Your task to perform on an android device: Search for seafood restaurants on Google Maps Image 0: 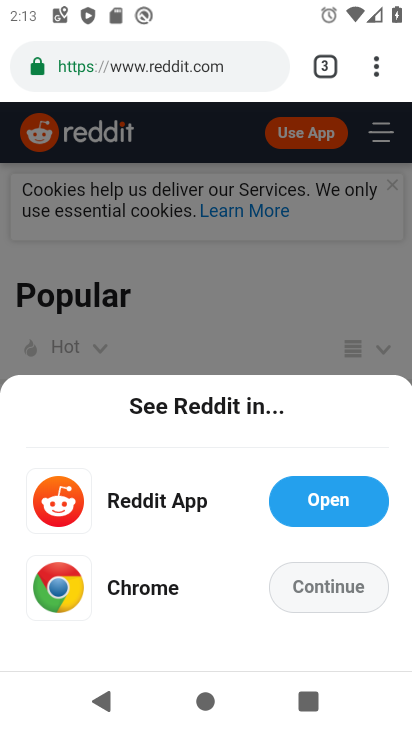
Step 0: press home button
Your task to perform on an android device: Search for seafood restaurants on Google Maps Image 1: 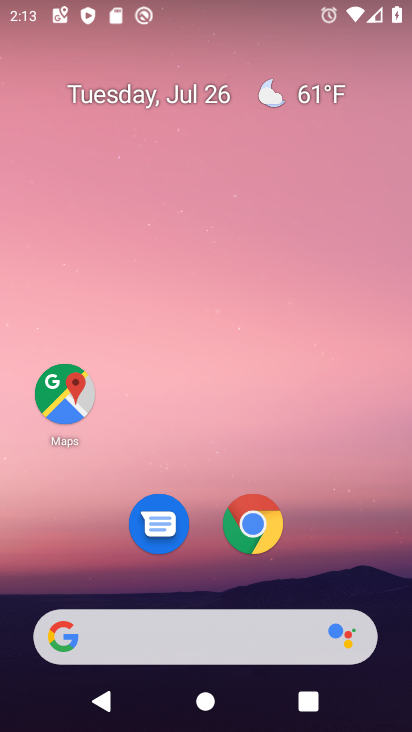
Step 1: click (65, 404)
Your task to perform on an android device: Search for seafood restaurants on Google Maps Image 2: 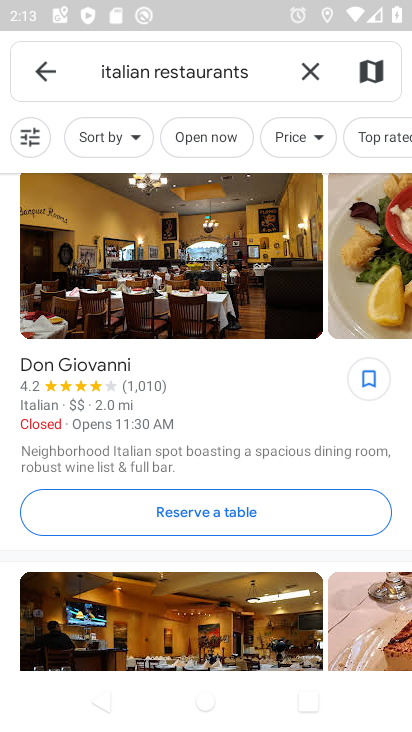
Step 2: click (311, 71)
Your task to perform on an android device: Search for seafood restaurants on Google Maps Image 3: 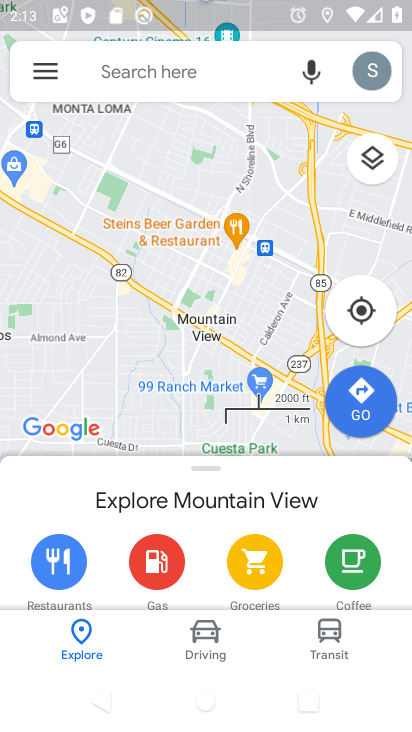
Step 3: click (141, 74)
Your task to perform on an android device: Search for seafood restaurants on Google Maps Image 4: 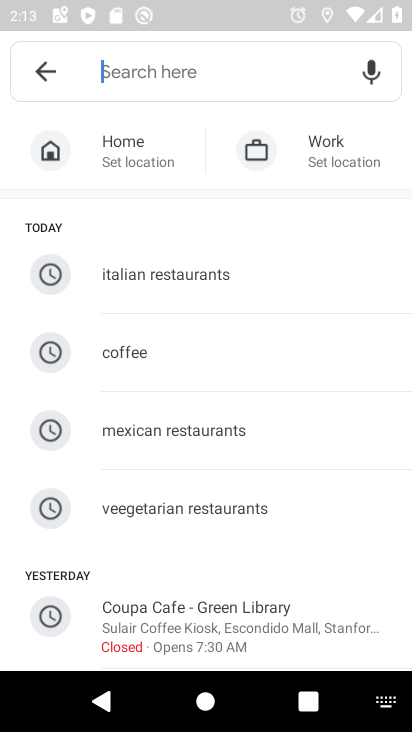
Step 4: drag from (209, 582) to (314, 299)
Your task to perform on an android device: Search for seafood restaurants on Google Maps Image 5: 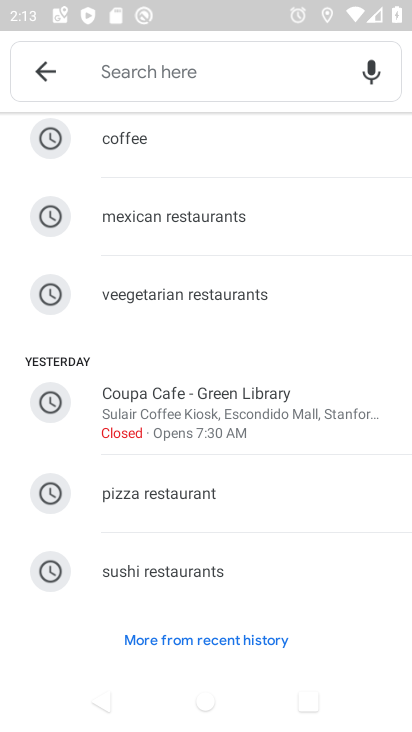
Step 5: drag from (322, 234) to (295, 658)
Your task to perform on an android device: Search for seafood restaurants on Google Maps Image 6: 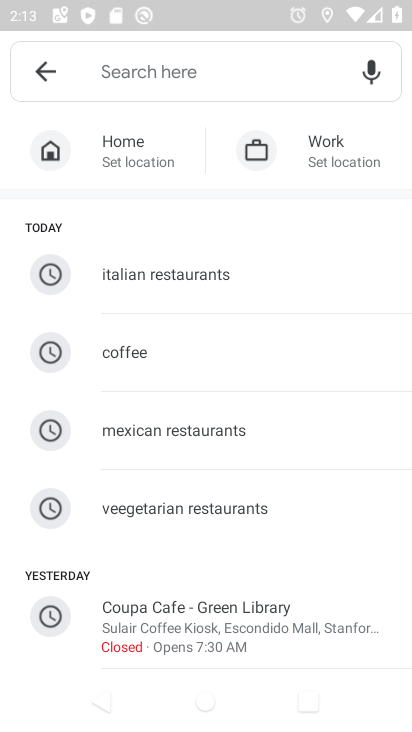
Step 6: type "seafood restaurants "
Your task to perform on an android device: Search for seafood restaurants on Google Maps Image 7: 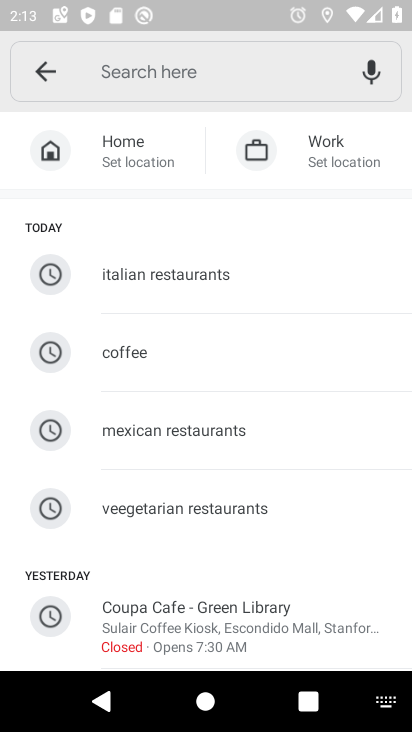
Step 7: click (112, 68)
Your task to perform on an android device: Search for seafood restaurants on Google Maps Image 8: 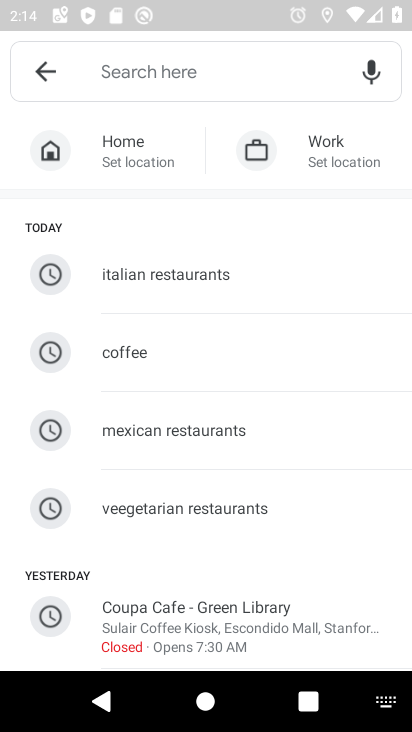
Step 8: type "seafood restaurants"
Your task to perform on an android device: Search for seafood restaurants on Google Maps Image 9: 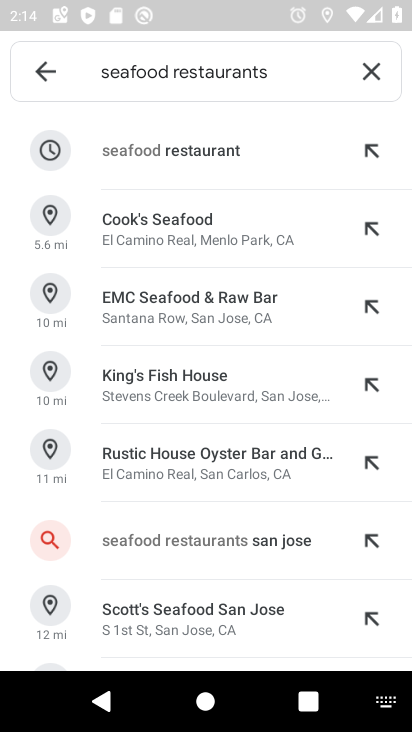
Step 9: click (164, 156)
Your task to perform on an android device: Search for seafood restaurants on Google Maps Image 10: 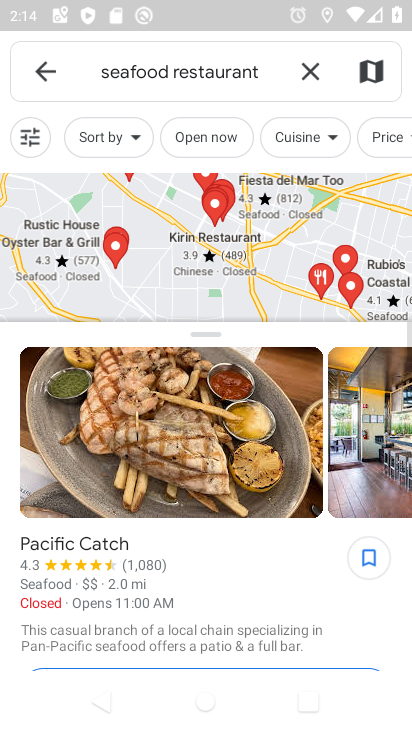
Step 10: task complete